Your task to perform on an android device: Open calendar and show me the fourth week of next month Image 0: 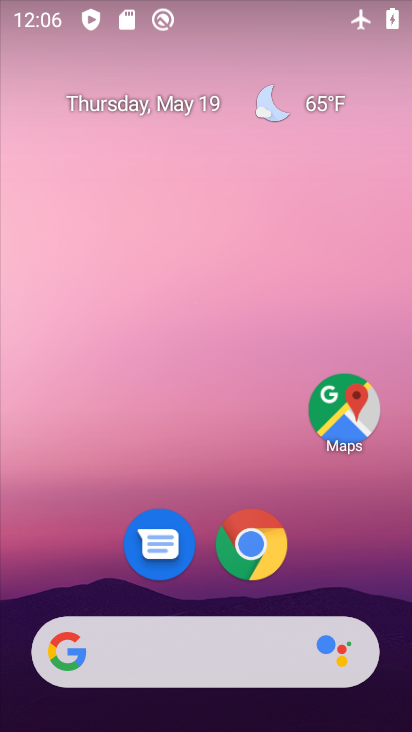
Step 0: drag from (363, 506) to (367, 116)
Your task to perform on an android device: Open calendar and show me the fourth week of next month Image 1: 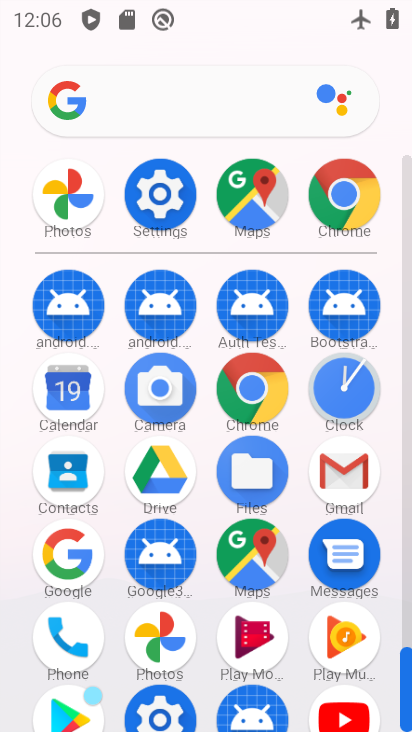
Step 1: click (69, 393)
Your task to perform on an android device: Open calendar and show me the fourth week of next month Image 2: 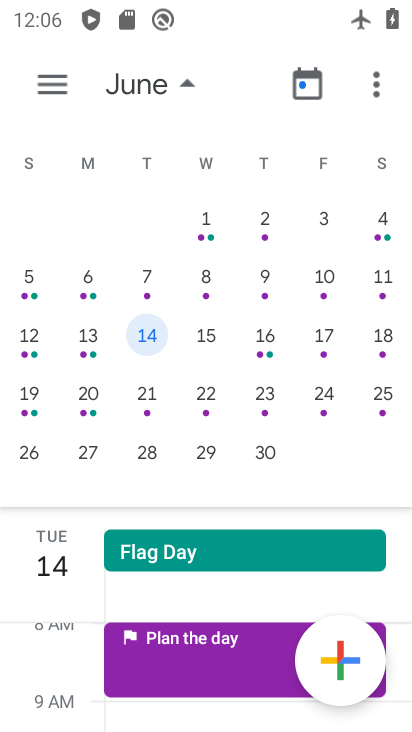
Step 2: click (149, 397)
Your task to perform on an android device: Open calendar and show me the fourth week of next month Image 3: 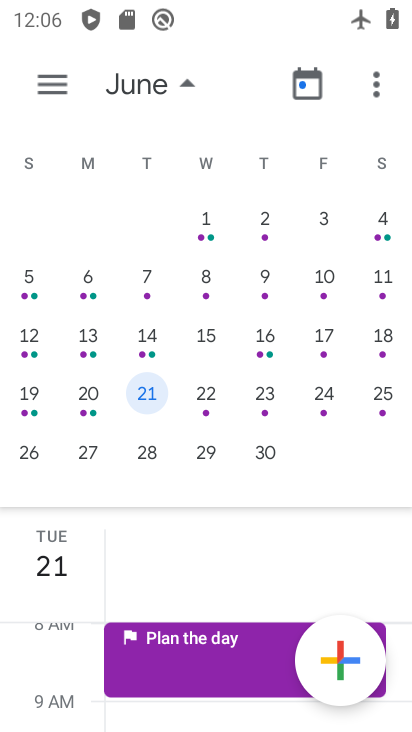
Step 3: task complete